Your task to perform on an android device: find snoozed emails in the gmail app Image 0: 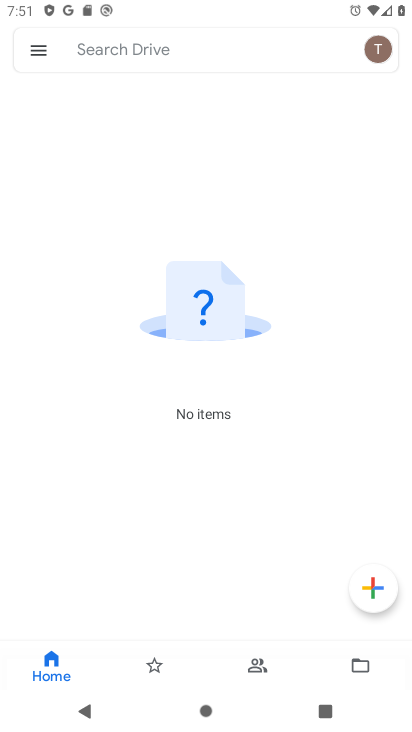
Step 0: press home button
Your task to perform on an android device: find snoozed emails in the gmail app Image 1: 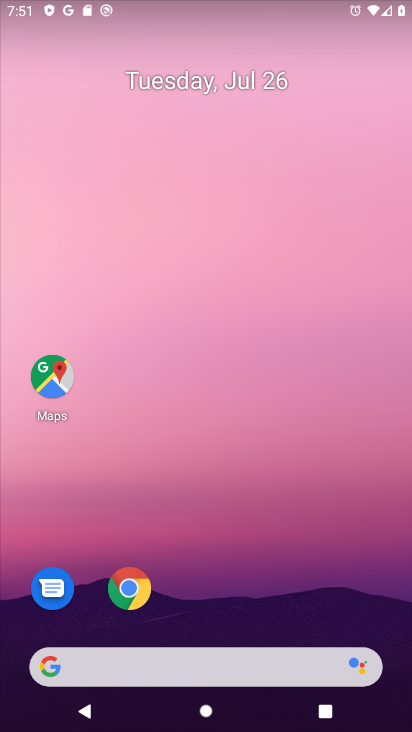
Step 1: drag from (190, 676) to (193, 135)
Your task to perform on an android device: find snoozed emails in the gmail app Image 2: 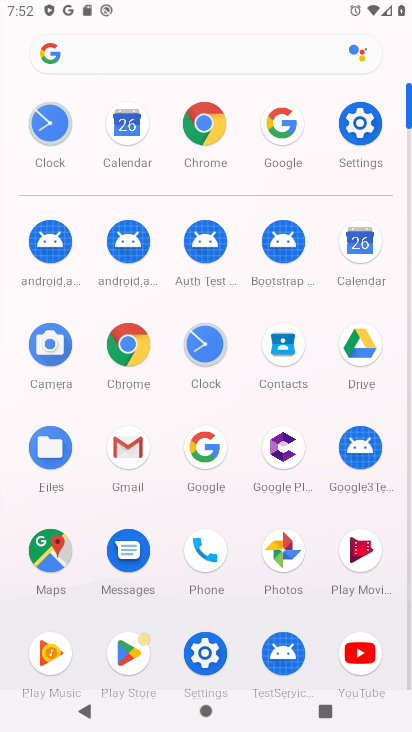
Step 2: click (116, 455)
Your task to perform on an android device: find snoozed emails in the gmail app Image 3: 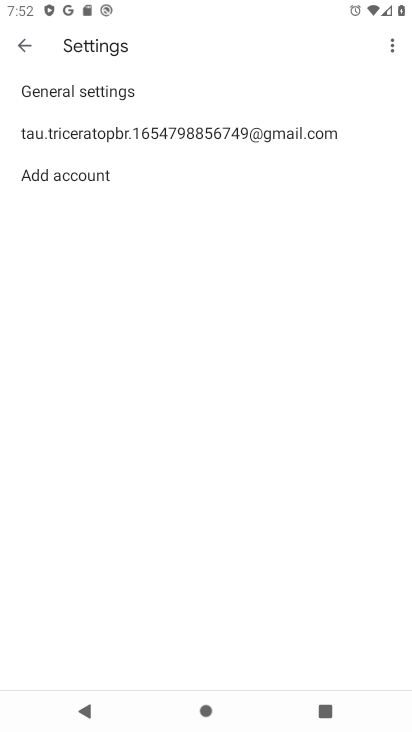
Step 3: click (25, 46)
Your task to perform on an android device: find snoozed emails in the gmail app Image 4: 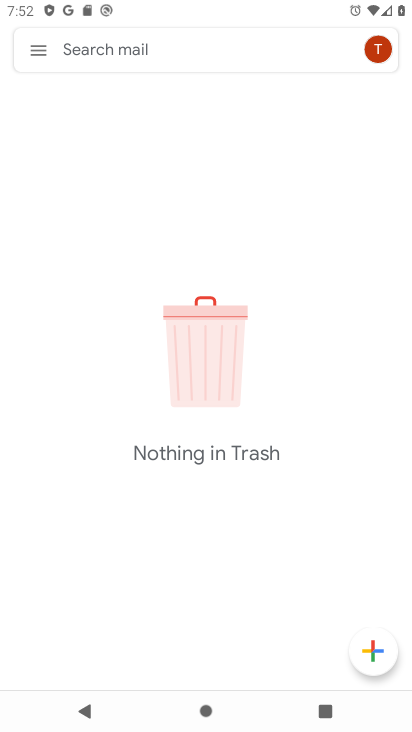
Step 4: click (27, 53)
Your task to perform on an android device: find snoozed emails in the gmail app Image 5: 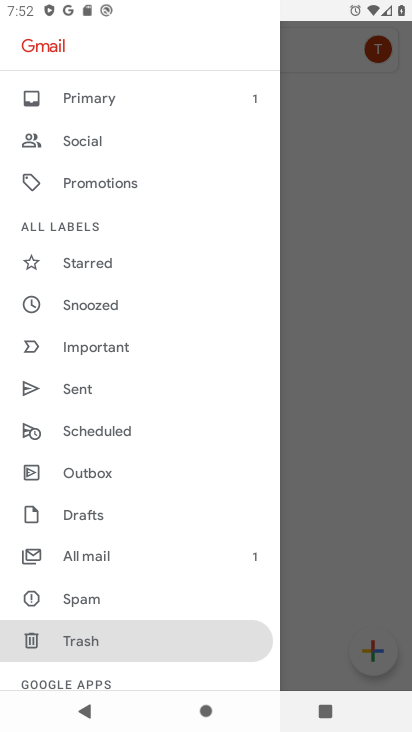
Step 5: click (94, 304)
Your task to perform on an android device: find snoozed emails in the gmail app Image 6: 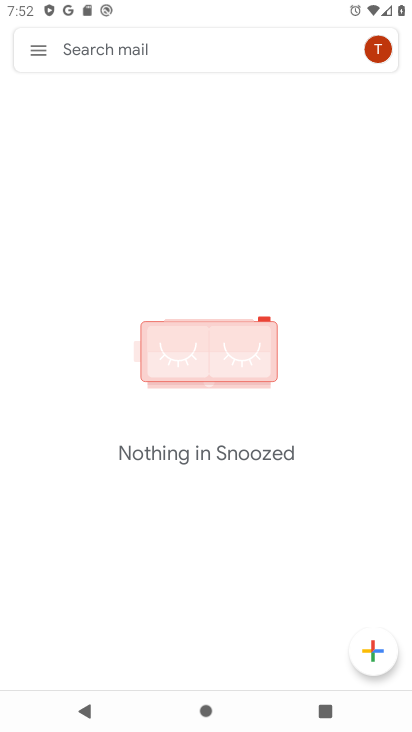
Step 6: task complete